Your task to perform on an android device: Search for seafood restaurants on Google Maps Image 0: 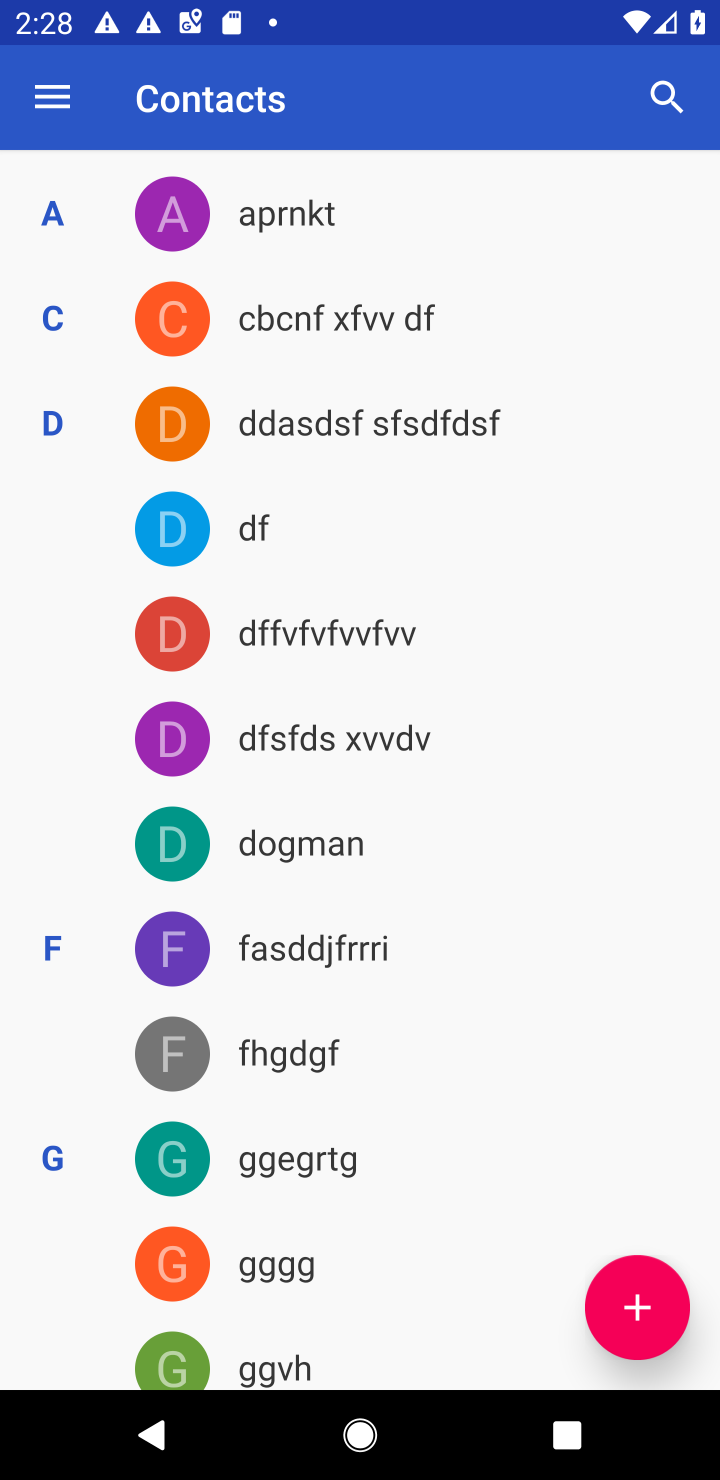
Step 0: press home button
Your task to perform on an android device: Search for seafood restaurants on Google Maps Image 1: 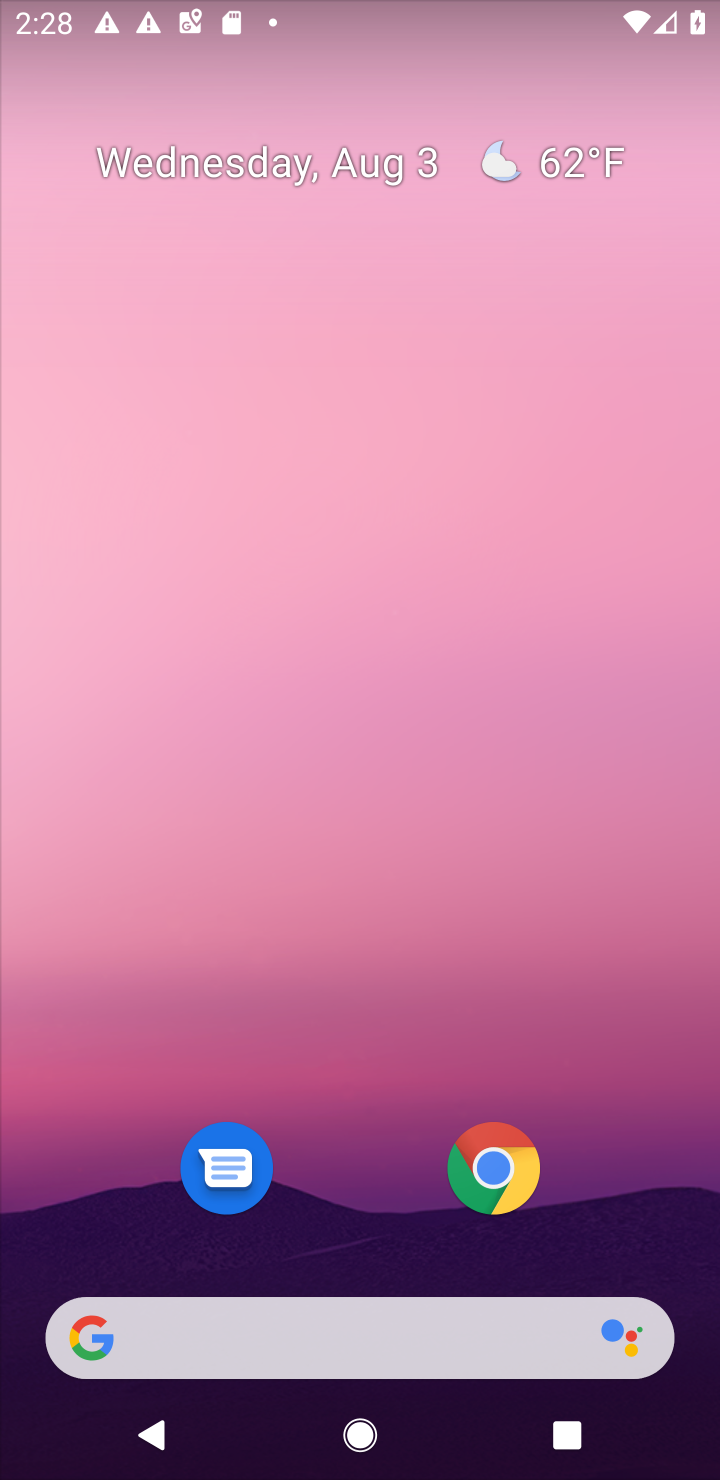
Step 1: drag from (674, 1253) to (602, 275)
Your task to perform on an android device: Search for seafood restaurants on Google Maps Image 2: 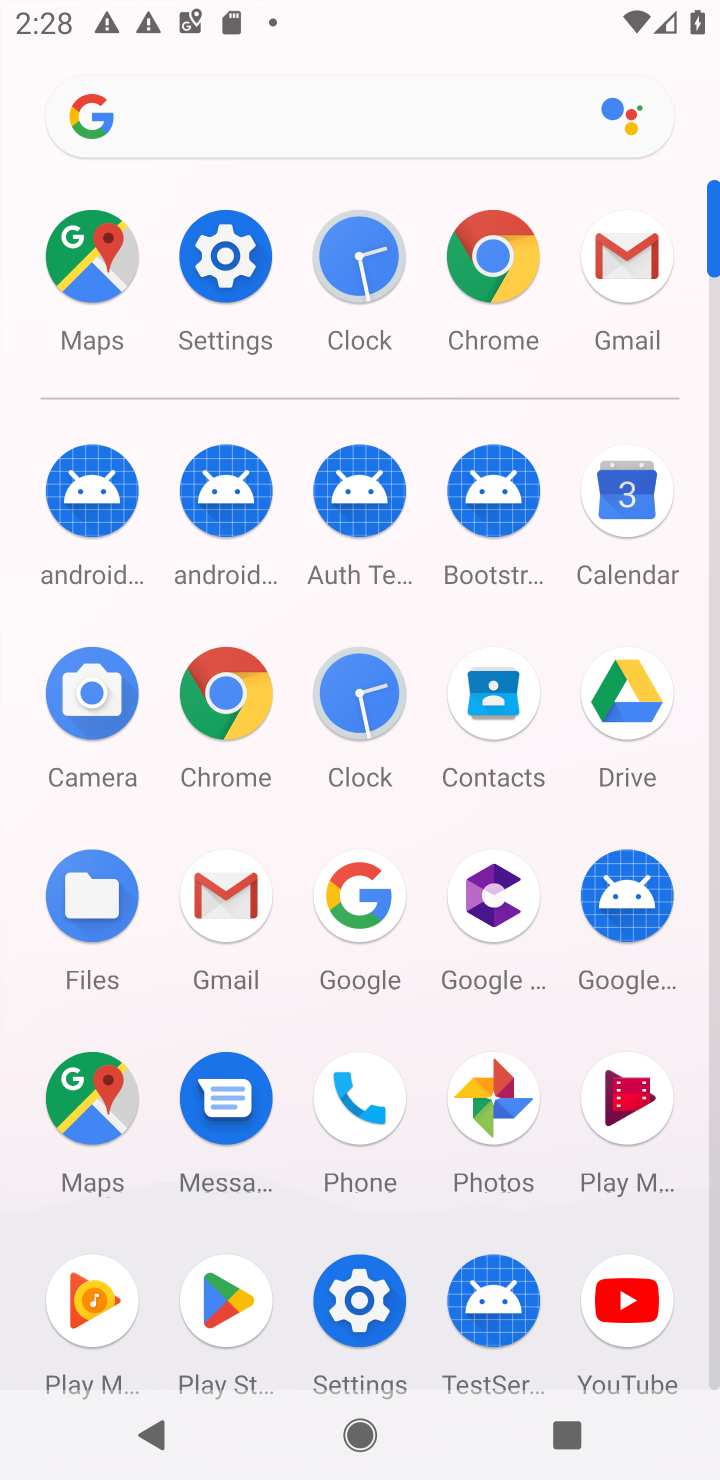
Step 2: click (93, 1108)
Your task to perform on an android device: Search for seafood restaurants on Google Maps Image 3: 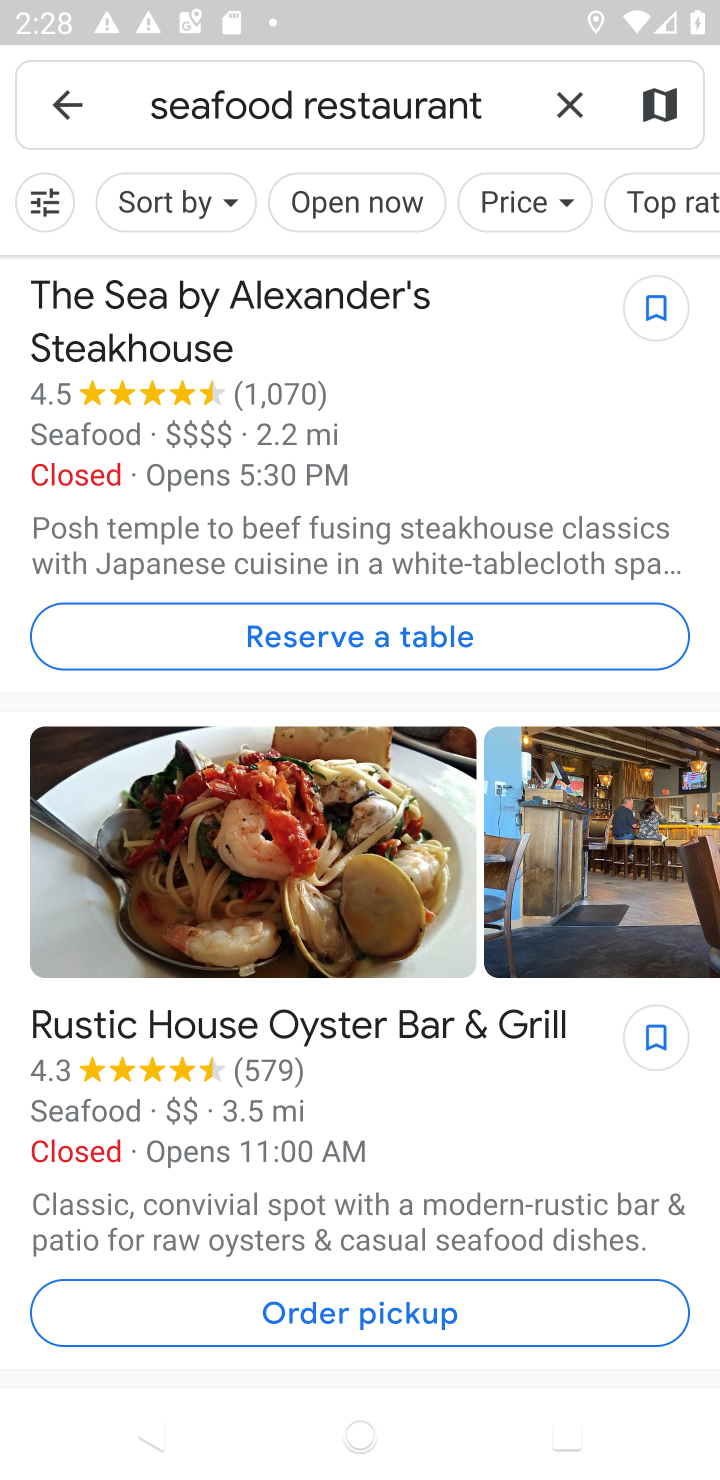
Step 3: task complete